Your task to perform on an android device: Open Chrome and go to settings Image 0: 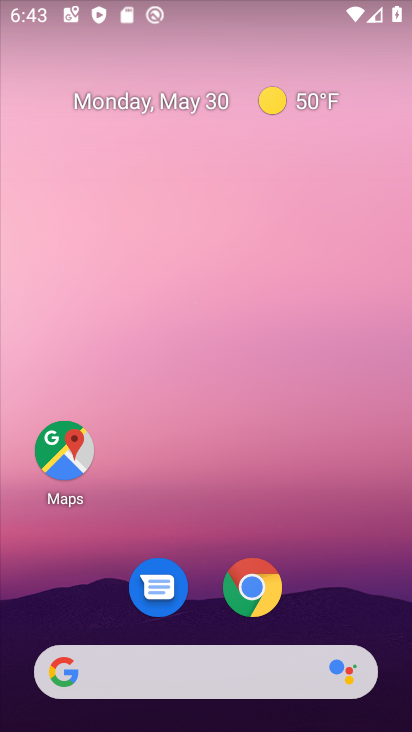
Step 0: drag from (326, 544) to (167, 1)
Your task to perform on an android device: Open Chrome and go to settings Image 1: 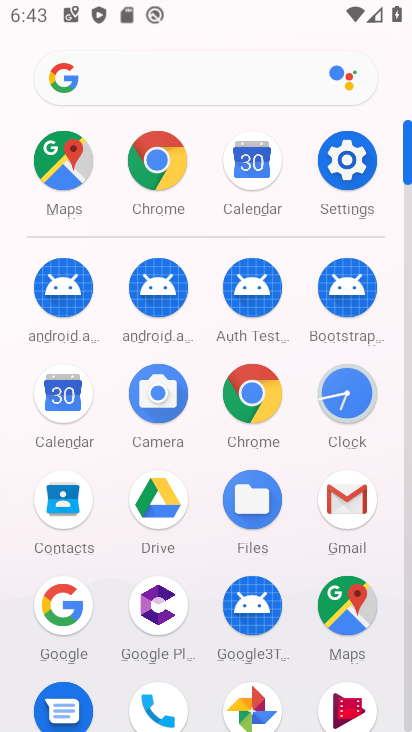
Step 1: click (252, 390)
Your task to perform on an android device: Open Chrome and go to settings Image 2: 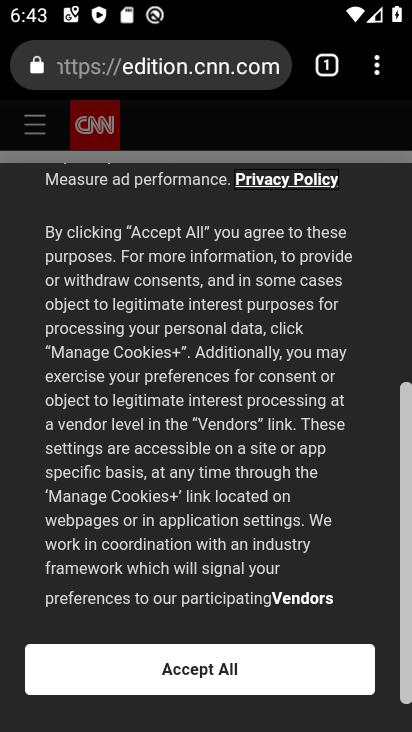
Step 2: drag from (370, 68) to (156, 637)
Your task to perform on an android device: Open Chrome and go to settings Image 3: 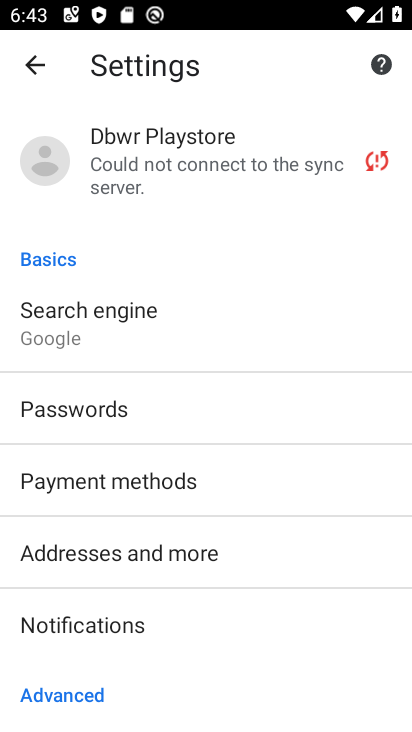
Step 3: drag from (280, 607) to (283, 208)
Your task to perform on an android device: Open Chrome and go to settings Image 4: 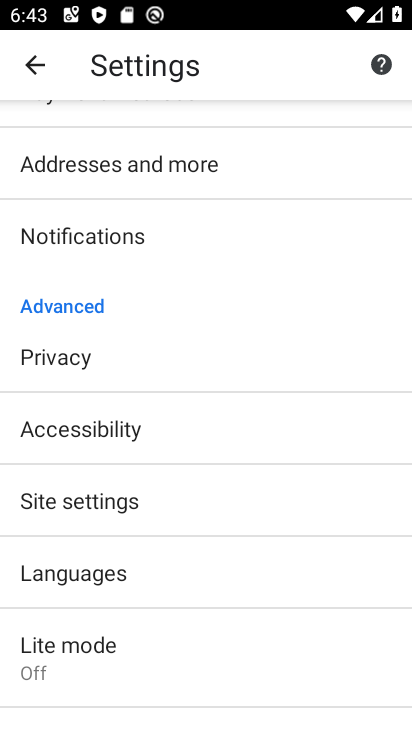
Step 4: drag from (312, 589) to (311, 224)
Your task to perform on an android device: Open Chrome and go to settings Image 5: 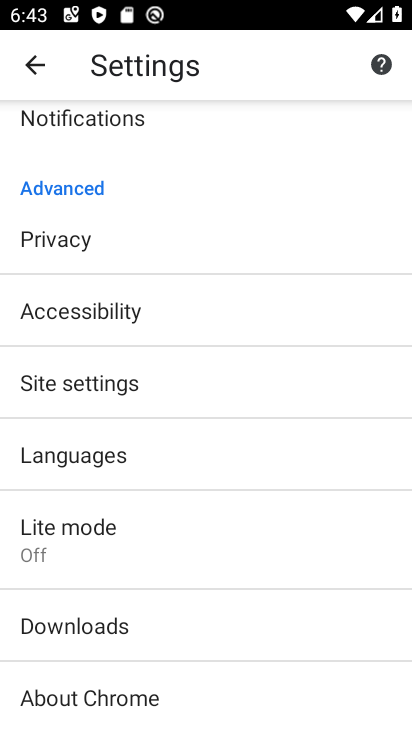
Step 5: click (271, 194)
Your task to perform on an android device: Open Chrome and go to settings Image 6: 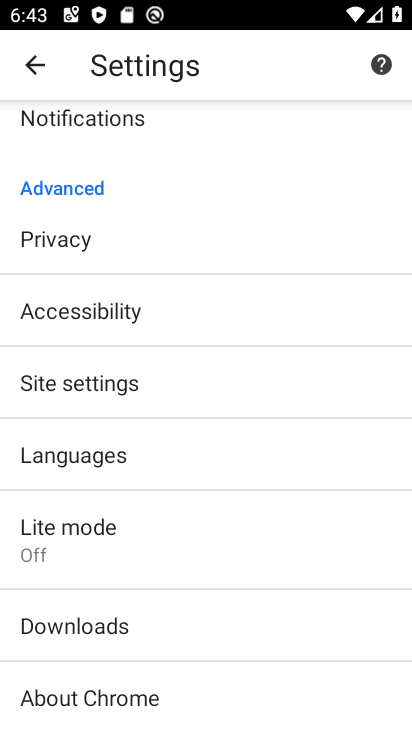
Step 6: task complete